Your task to perform on an android device: Go to calendar. Show me events next week Image 0: 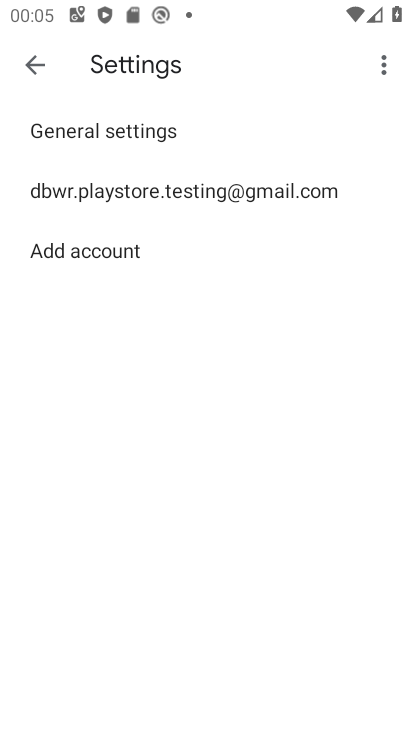
Step 0: press home button
Your task to perform on an android device: Go to calendar. Show me events next week Image 1: 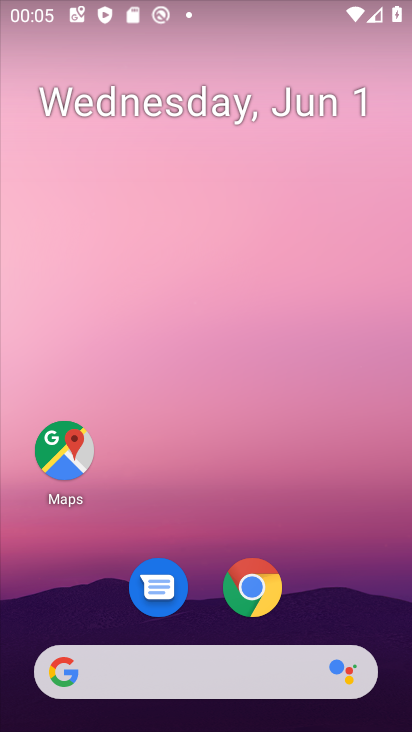
Step 1: drag from (353, 604) to (348, 32)
Your task to perform on an android device: Go to calendar. Show me events next week Image 2: 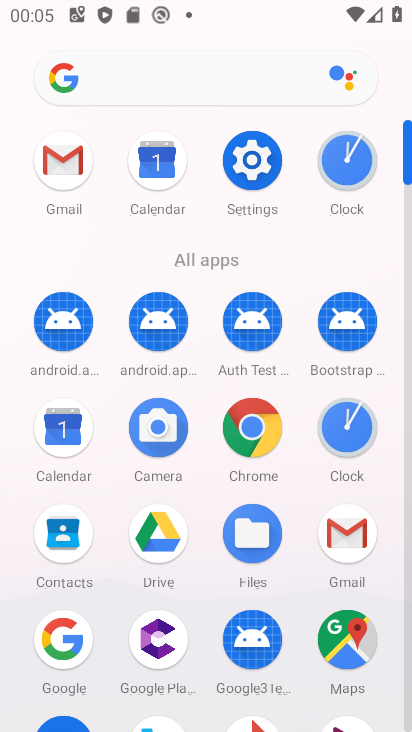
Step 2: click (61, 430)
Your task to perform on an android device: Go to calendar. Show me events next week Image 3: 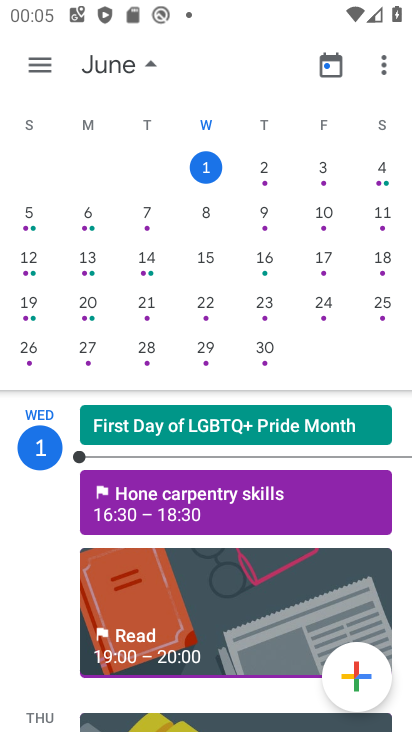
Step 3: click (37, 229)
Your task to perform on an android device: Go to calendar. Show me events next week Image 4: 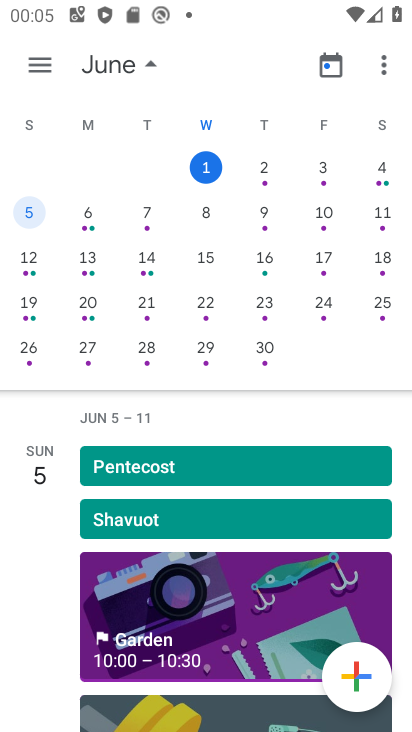
Step 4: task complete